Your task to perform on an android device: open the mobile data screen to see how much data has been used Image 0: 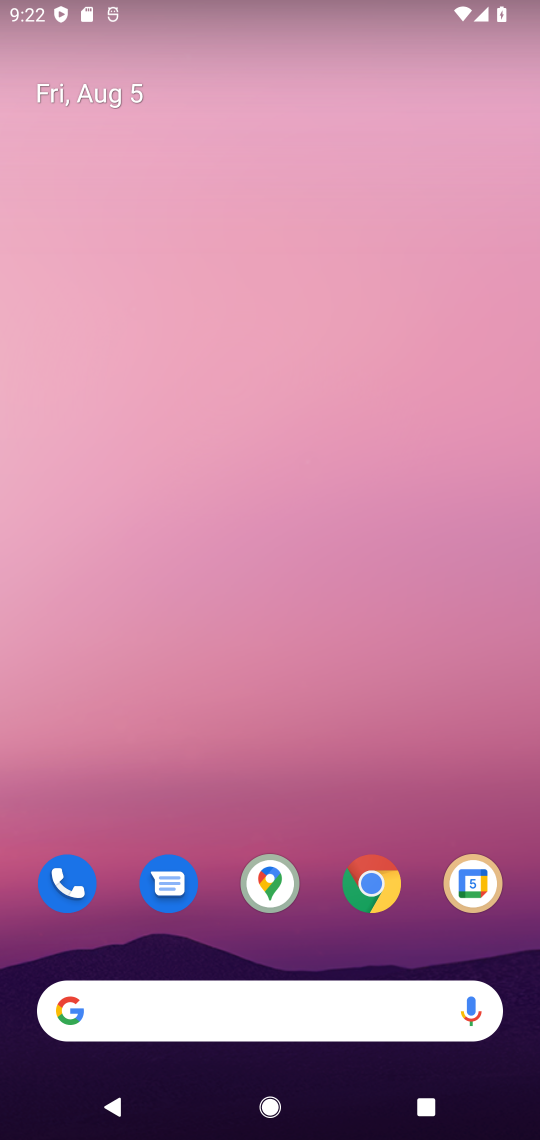
Step 0: drag from (239, 945) to (341, 96)
Your task to perform on an android device: open the mobile data screen to see how much data has been used Image 1: 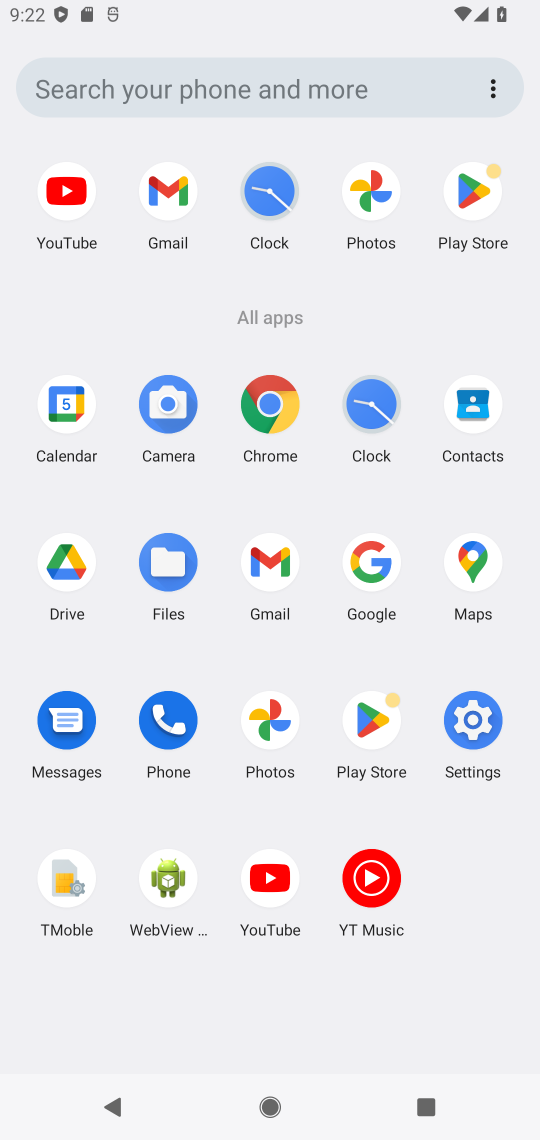
Step 1: click (267, 422)
Your task to perform on an android device: open the mobile data screen to see how much data has been used Image 2: 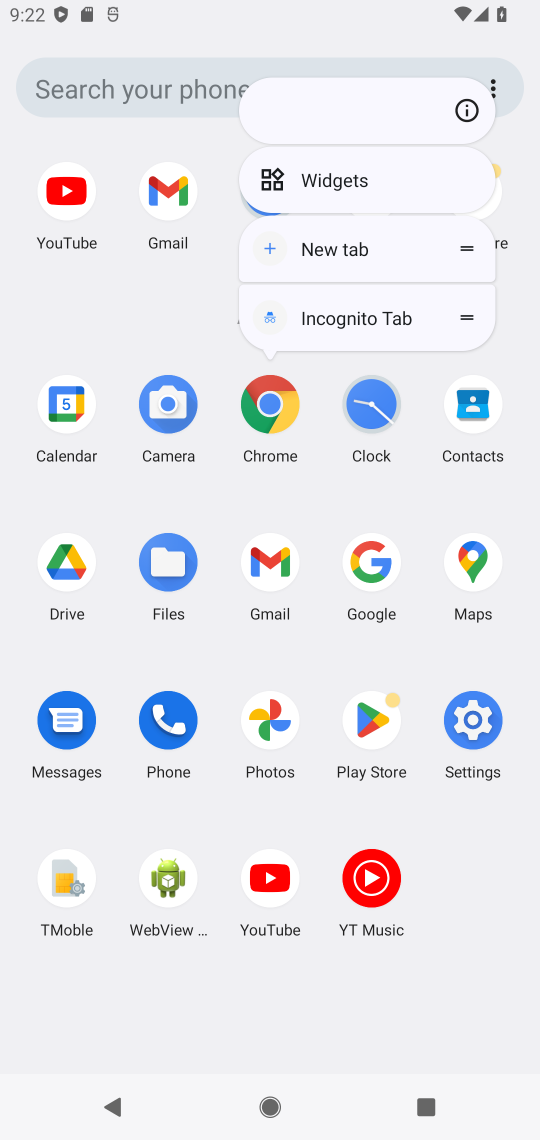
Step 2: click (481, 740)
Your task to perform on an android device: open the mobile data screen to see how much data has been used Image 3: 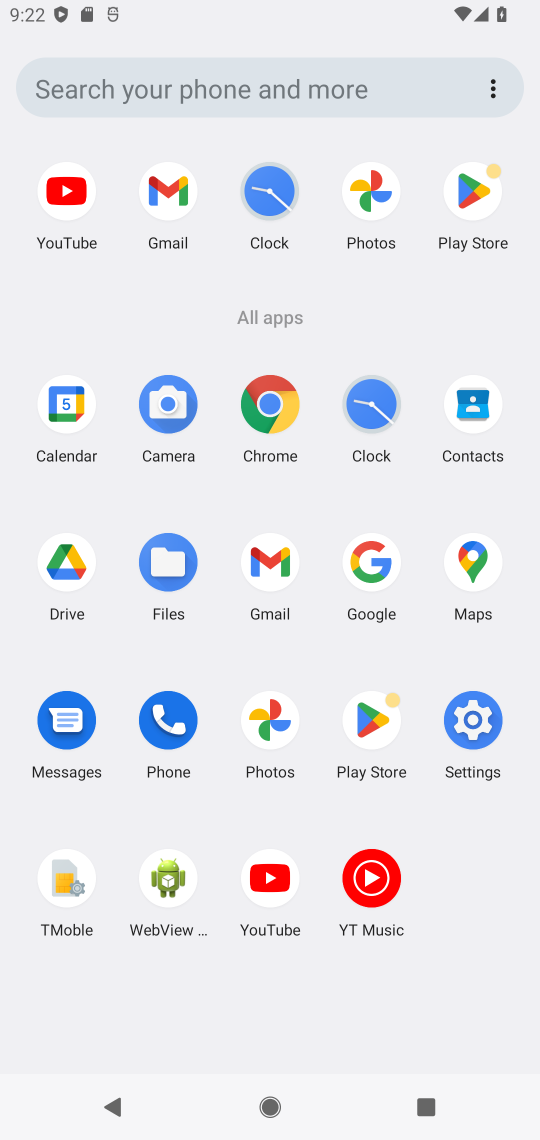
Step 3: click (473, 712)
Your task to perform on an android device: open the mobile data screen to see how much data has been used Image 4: 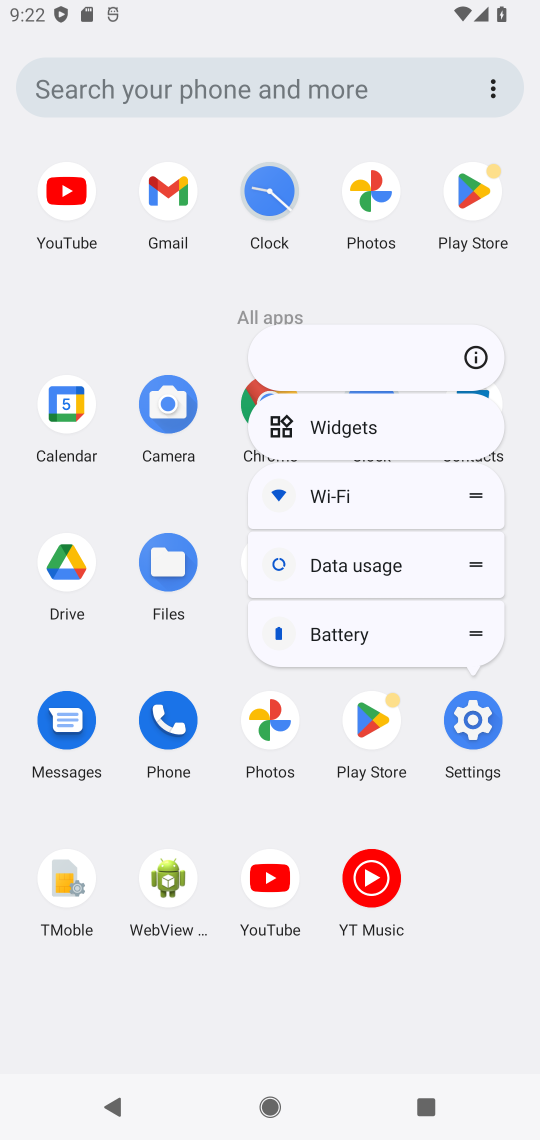
Step 4: click (479, 721)
Your task to perform on an android device: open the mobile data screen to see how much data has been used Image 5: 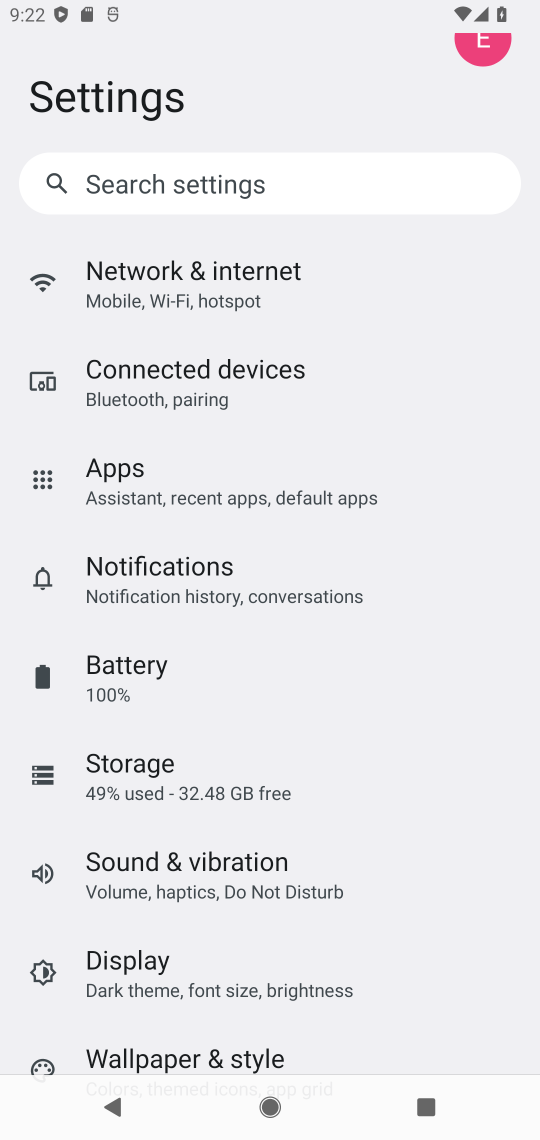
Step 5: click (232, 271)
Your task to perform on an android device: open the mobile data screen to see how much data has been used Image 6: 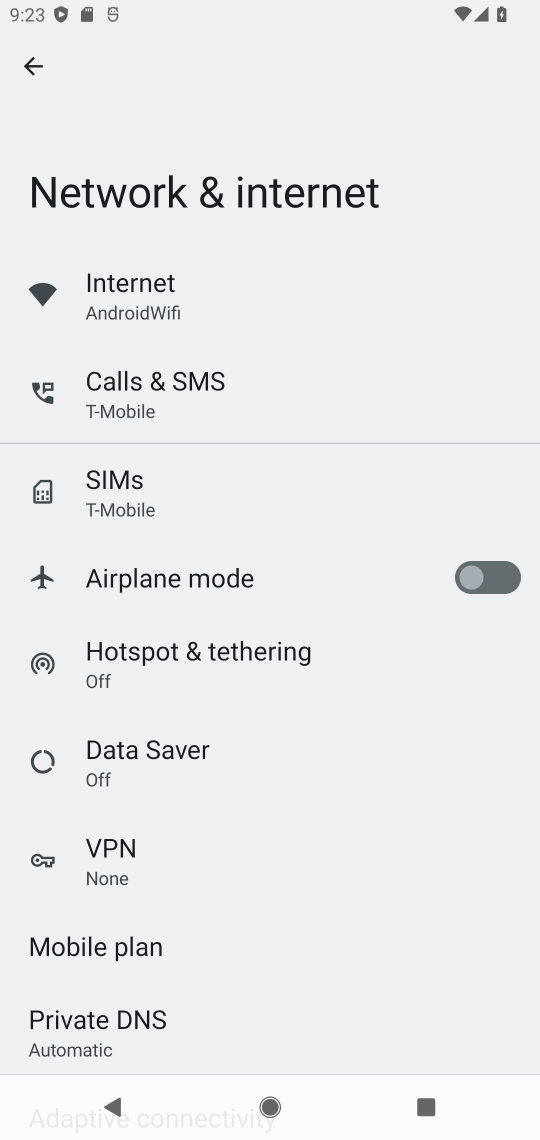
Step 6: click (172, 311)
Your task to perform on an android device: open the mobile data screen to see how much data has been used Image 7: 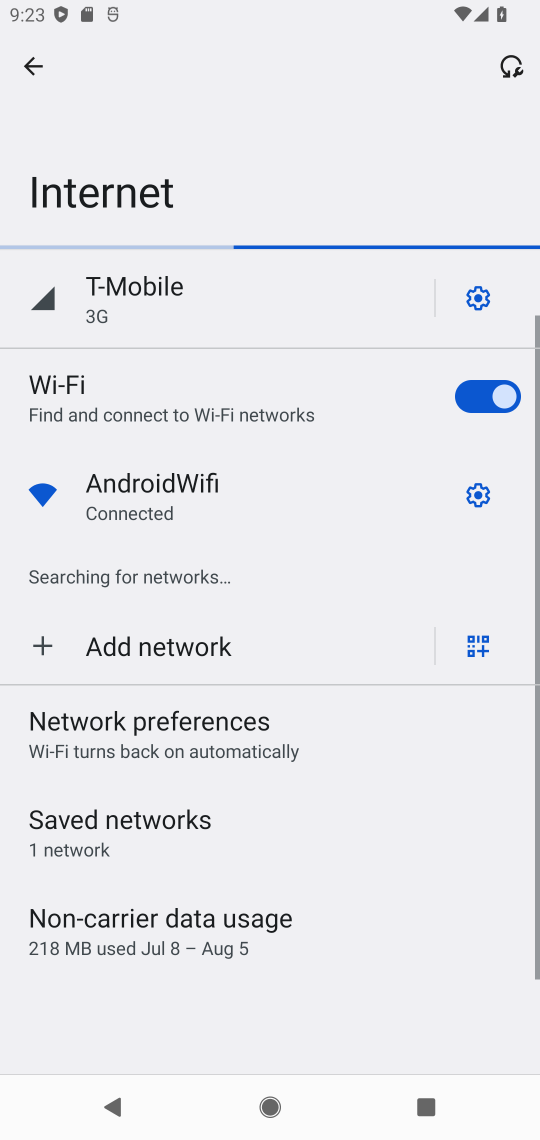
Step 7: click (212, 933)
Your task to perform on an android device: open the mobile data screen to see how much data has been used Image 8: 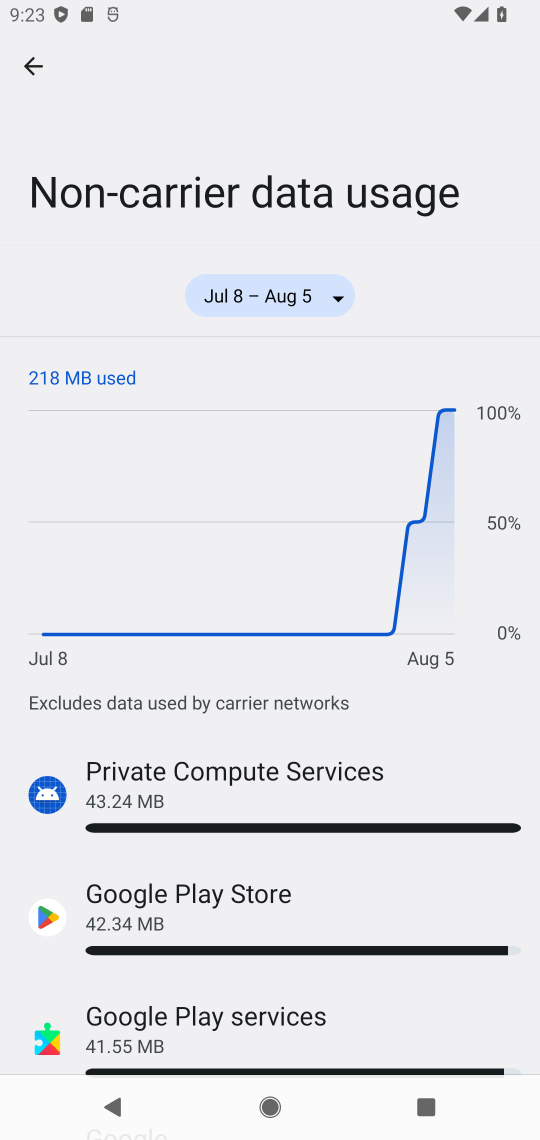
Step 8: task complete